Your task to perform on an android device: Open accessibility settings Image 0: 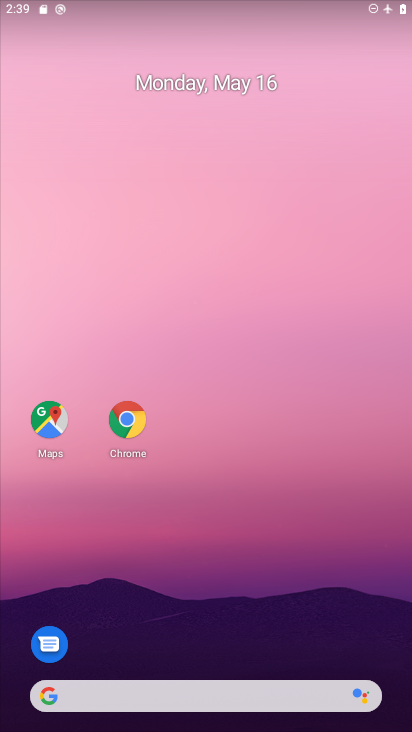
Step 0: drag from (365, 12) to (410, 550)
Your task to perform on an android device: Open accessibility settings Image 1: 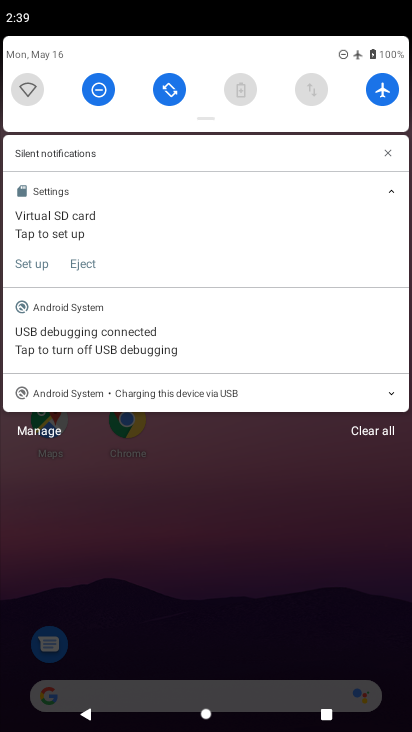
Step 1: click (385, 94)
Your task to perform on an android device: Open accessibility settings Image 2: 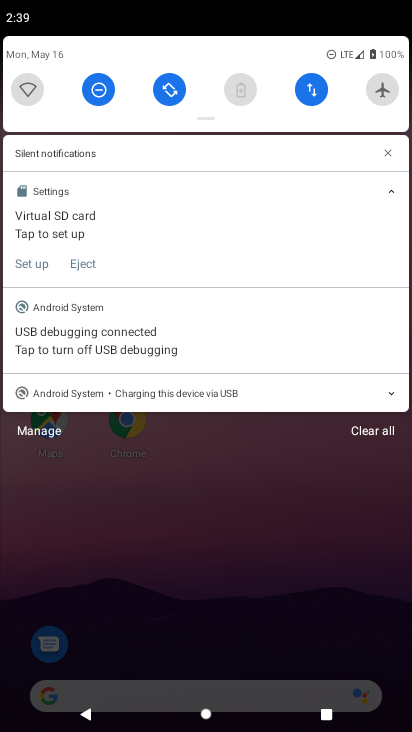
Step 2: press home button
Your task to perform on an android device: Open accessibility settings Image 3: 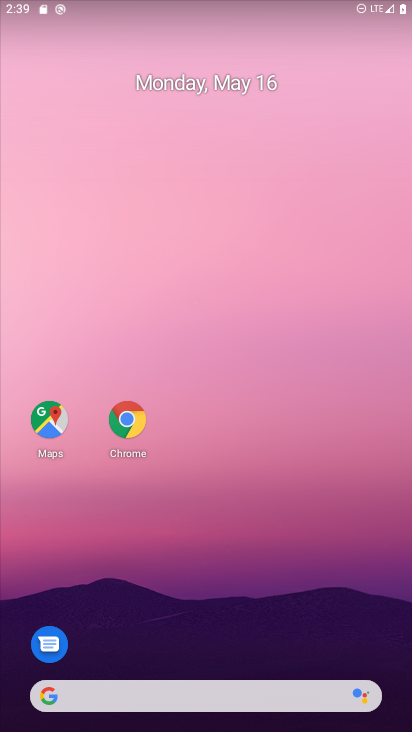
Step 3: drag from (179, 611) to (177, 14)
Your task to perform on an android device: Open accessibility settings Image 4: 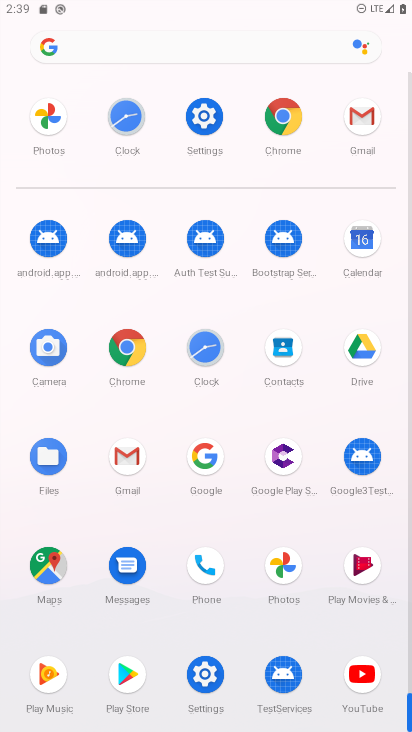
Step 4: click (201, 120)
Your task to perform on an android device: Open accessibility settings Image 5: 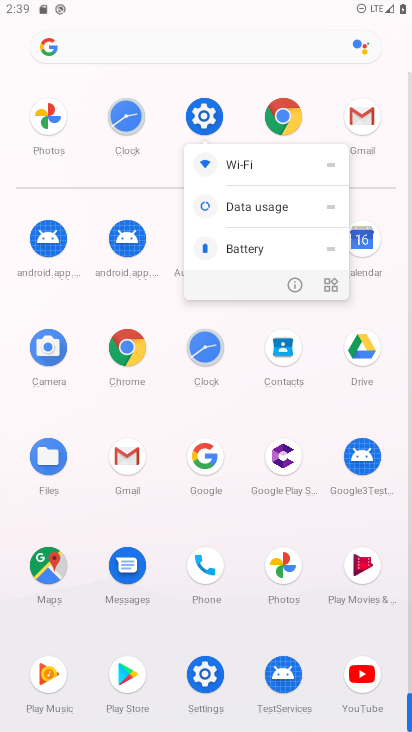
Step 5: click (280, 284)
Your task to perform on an android device: Open accessibility settings Image 6: 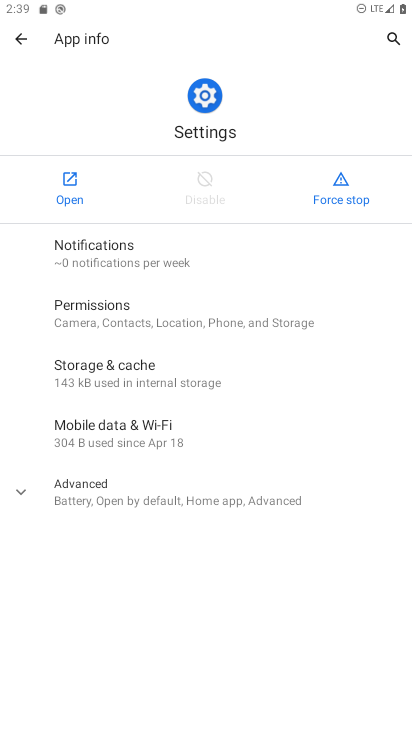
Step 6: click (56, 189)
Your task to perform on an android device: Open accessibility settings Image 7: 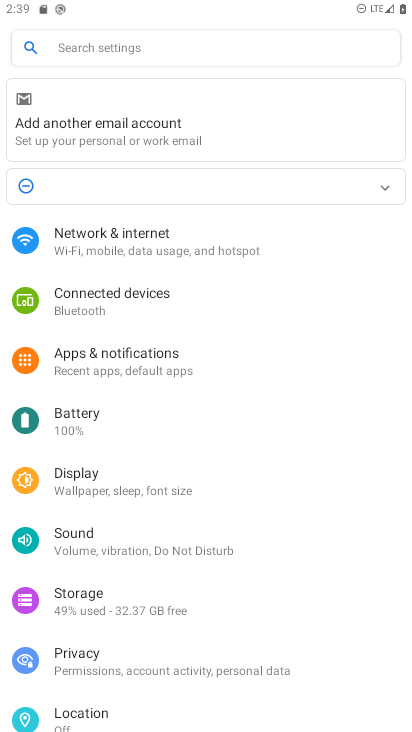
Step 7: drag from (183, 619) to (223, 38)
Your task to perform on an android device: Open accessibility settings Image 8: 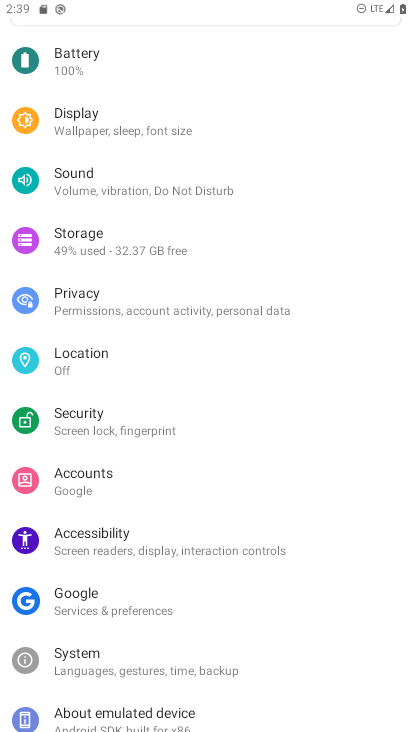
Step 8: click (121, 540)
Your task to perform on an android device: Open accessibility settings Image 9: 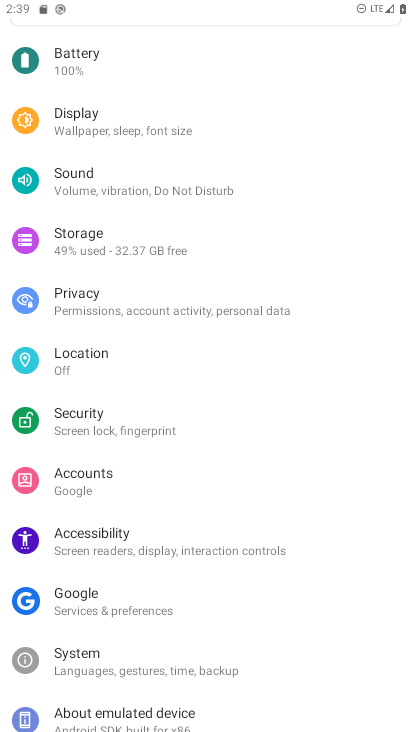
Step 9: click (121, 540)
Your task to perform on an android device: Open accessibility settings Image 10: 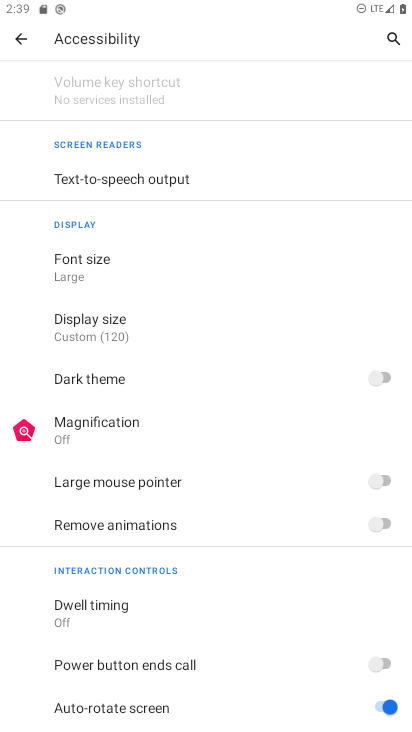
Step 10: task complete